Your task to perform on an android device: allow cookies in the chrome app Image 0: 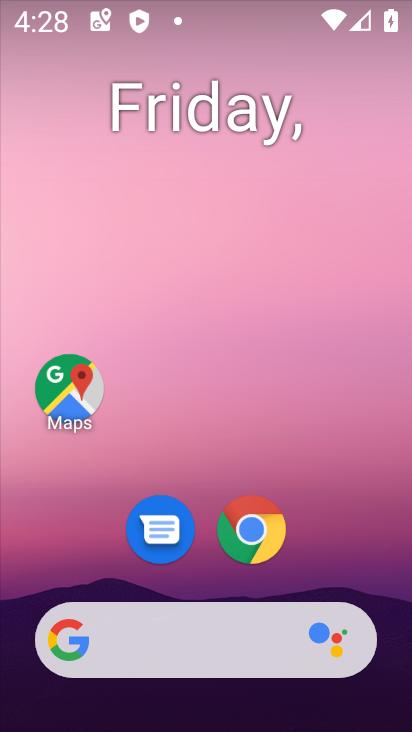
Step 0: click (293, 80)
Your task to perform on an android device: allow cookies in the chrome app Image 1: 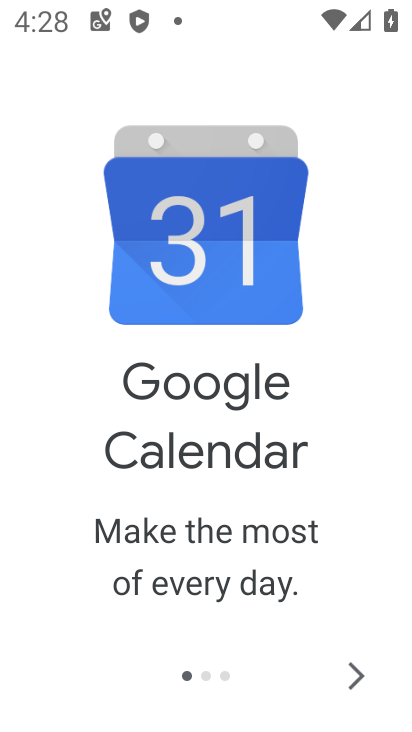
Step 1: press home button
Your task to perform on an android device: allow cookies in the chrome app Image 2: 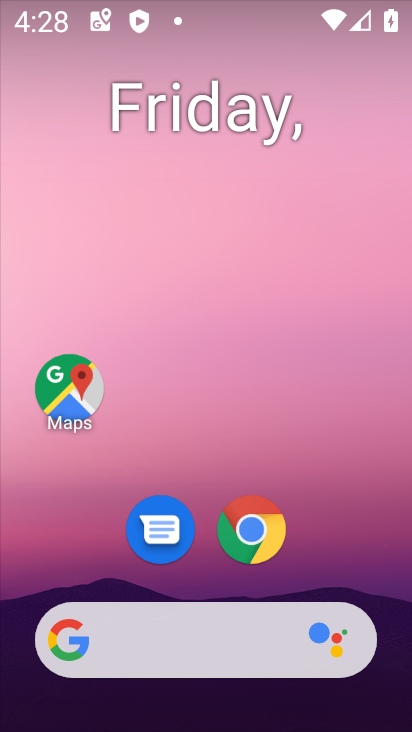
Step 2: click (257, 534)
Your task to perform on an android device: allow cookies in the chrome app Image 3: 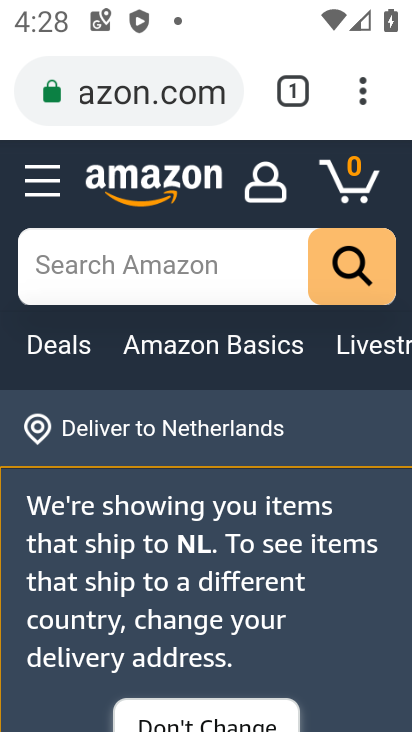
Step 3: click (358, 95)
Your task to perform on an android device: allow cookies in the chrome app Image 4: 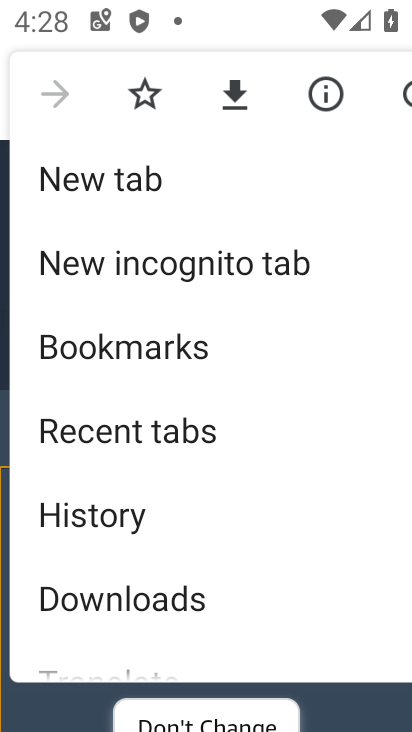
Step 4: drag from (237, 578) to (189, 128)
Your task to perform on an android device: allow cookies in the chrome app Image 5: 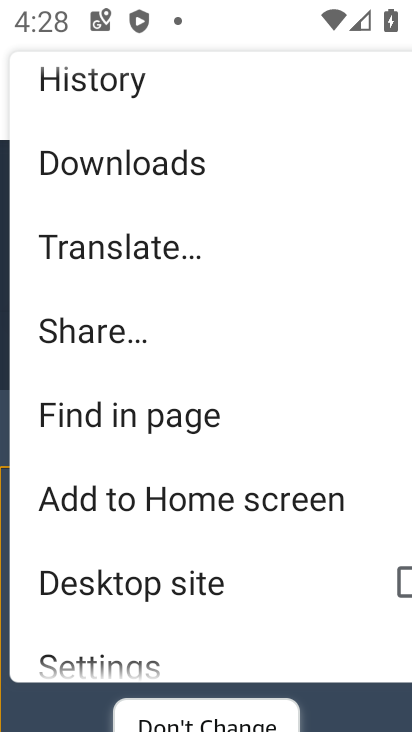
Step 5: drag from (223, 588) to (263, 281)
Your task to perform on an android device: allow cookies in the chrome app Image 6: 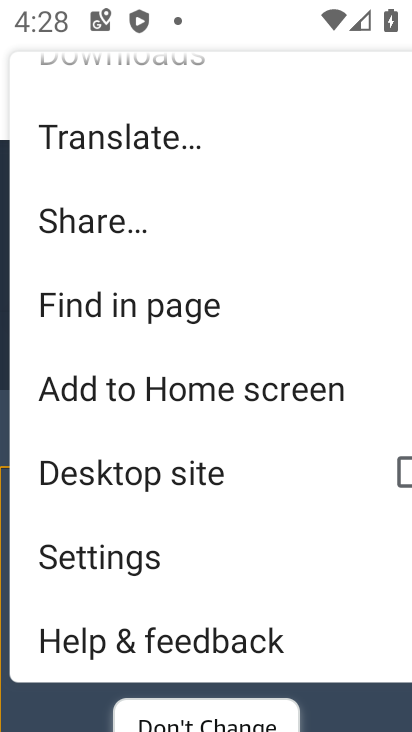
Step 6: click (143, 574)
Your task to perform on an android device: allow cookies in the chrome app Image 7: 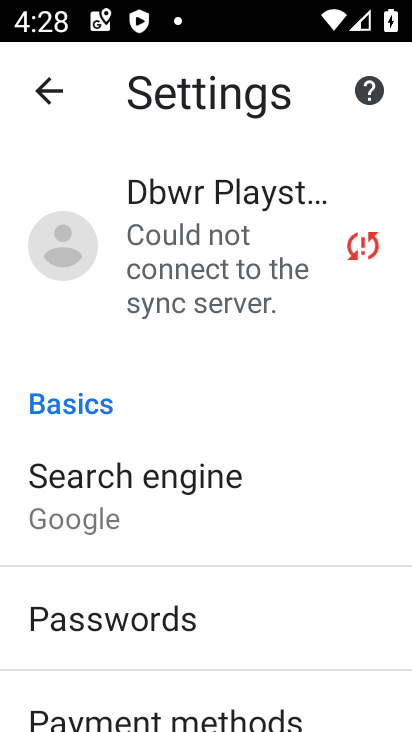
Step 7: drag from (190, 686) to (202, 296)
Your task to perform on an android device: allow cookies in the chrome app Image 8: 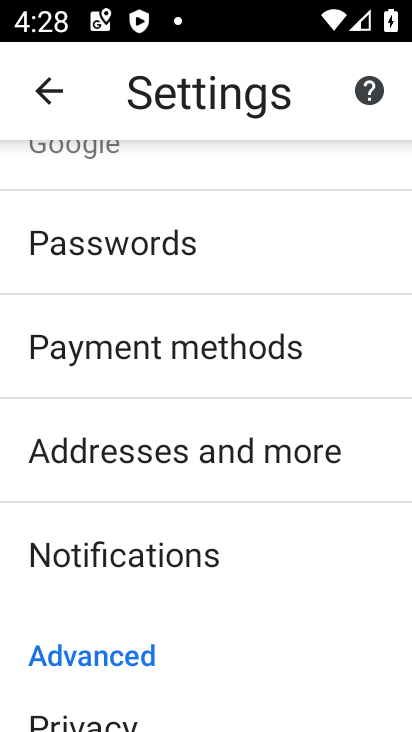
Step 8: drag from (258, 692) to (285, 295)
Your task to perform on an android device: allow cookies in the chrome app Image 9: 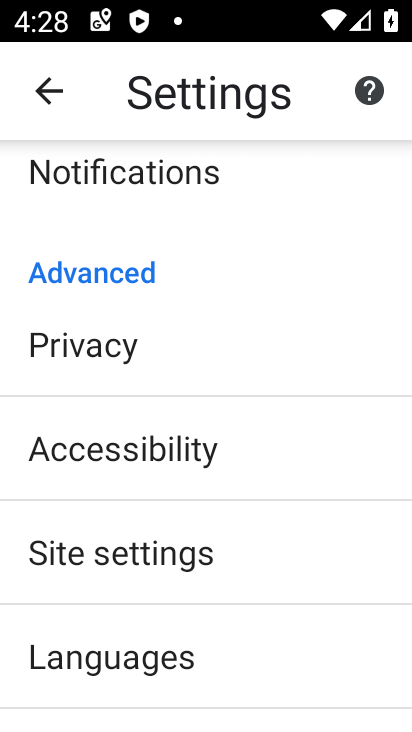
Step 9: click (172, 572)
Your task to perform on an android device: allow cookies in the chrome app Image 10: 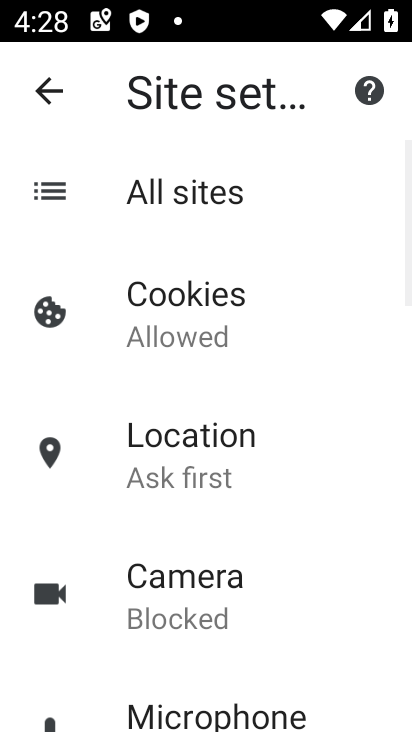
Step 10: click (185, 340)
Your task to perform on an android device: allow cookies in the chrome app Image 11: 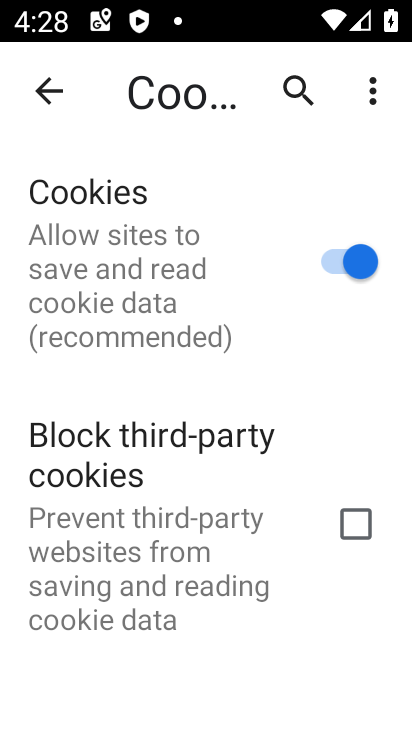
Step 11: task complete